Your task to perform on an android device: Go to Yahoo.com Image 0: 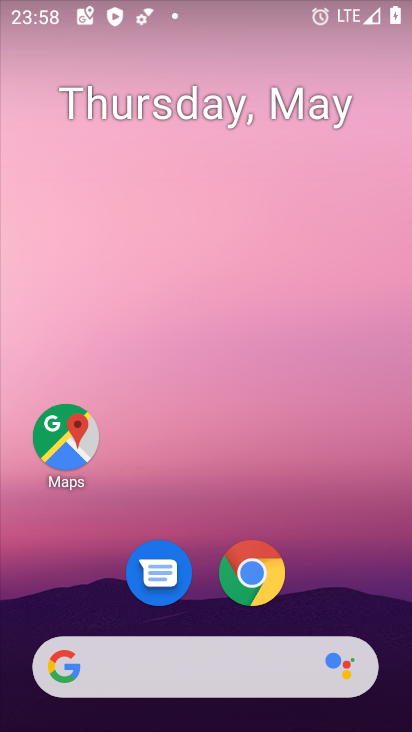
Step 0: click (262, 568)
Your task to perform on an android device: Go to Yahoo.com Image 1: 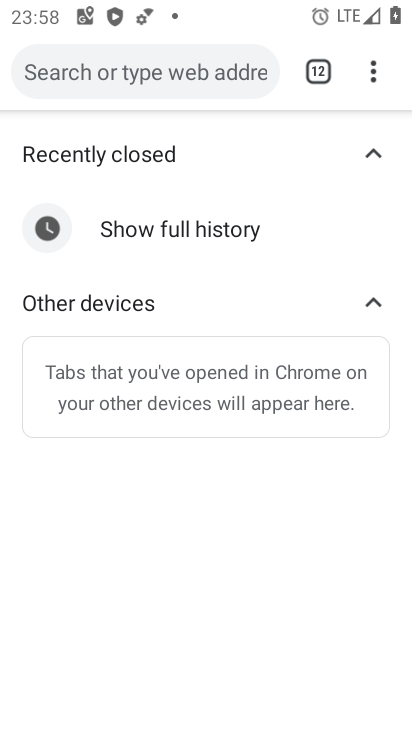
Step 1: click (321, 71)
Your task to perform on an android device: Go to Yahoo.com Image 2: 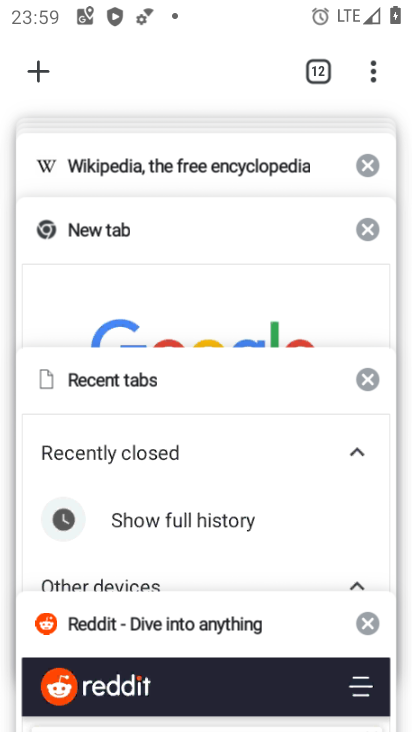
Step 2: drag from (194, 544) to (216, 215)
Your task to perform on an android device: Go to Yahoo.com Image 3: 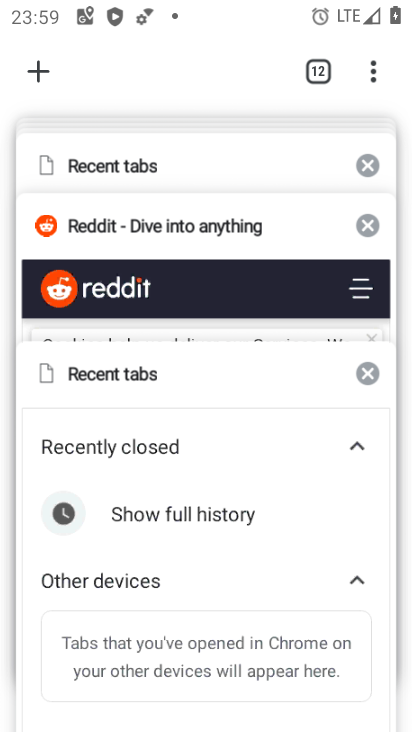
Step 3: drag from (223, 550) to (224, 178)
Your task to perform on an android device: Go to Yahoo.com Image 4: 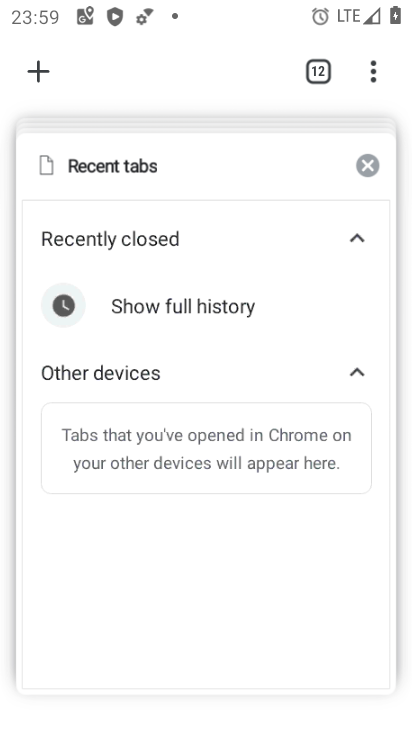
Step 4: drag from (224, 178) to (224, 414)
Your task to perform on an android device: Go to Yahoo.com Image 5: 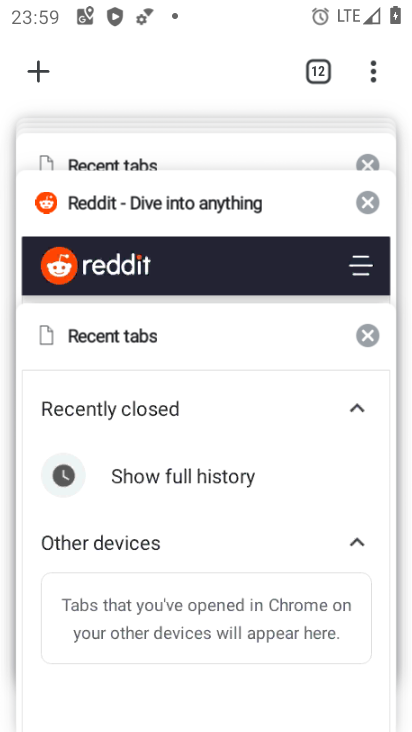
Step 5: drag from (223, 327) to (223, 459)
Your task to perform on an android device: Go to Yahoo.com Image 6: 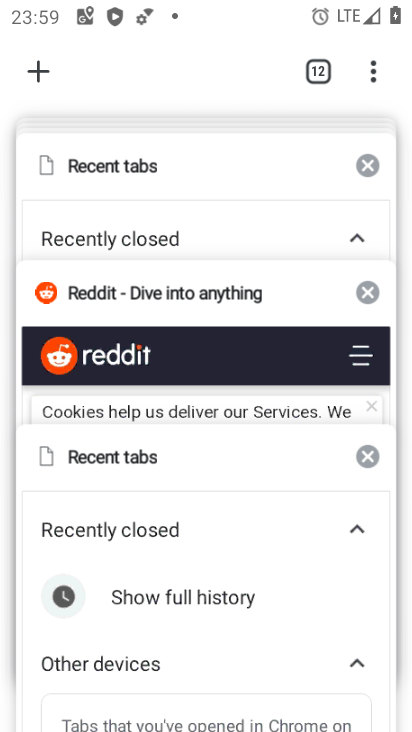
Step 6: drag from (219, 249) to (225, 506)
Your task to perform on an android device: Go to Yahoo.com Image 7: 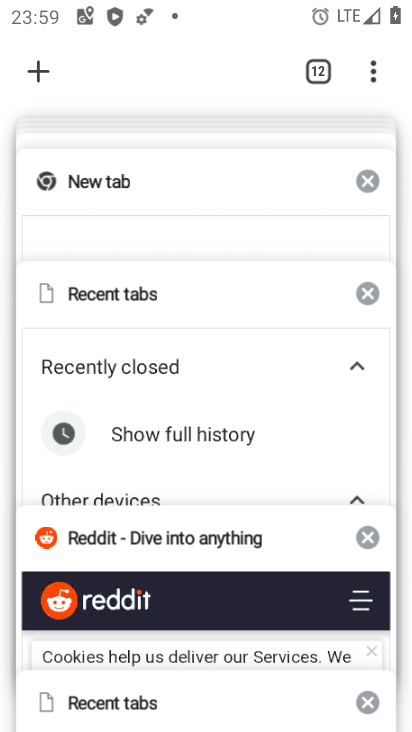
Step 7: drag from (199, 262) to (231, 504)
Your task to perform on an android device: Go to Yahoo.com Image 8: 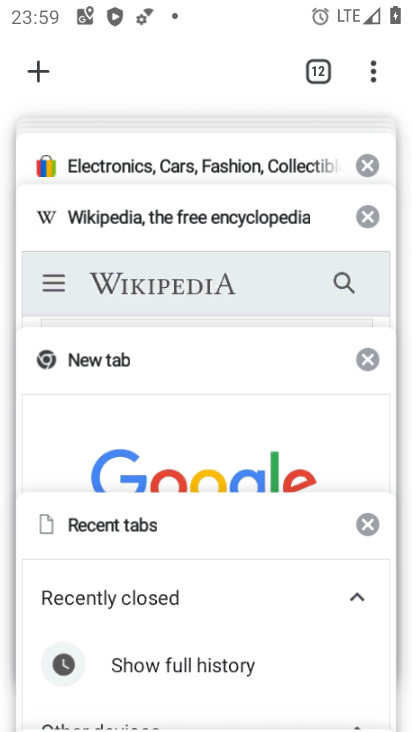
Step 8: drag from (229, 230) to (241, 561)
Your task to perform on an android device: Go to Yahoo.com Image 9: 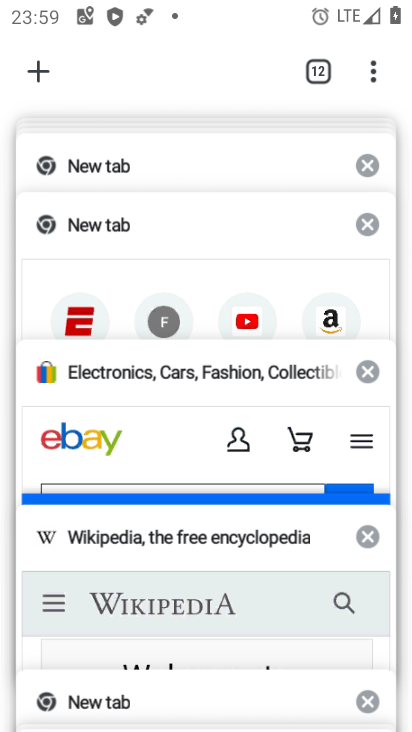
Step 9: drag from (227, 260) to (233, 579)
Your task to perform on an android device: Go to Yahoo.com Image 10: 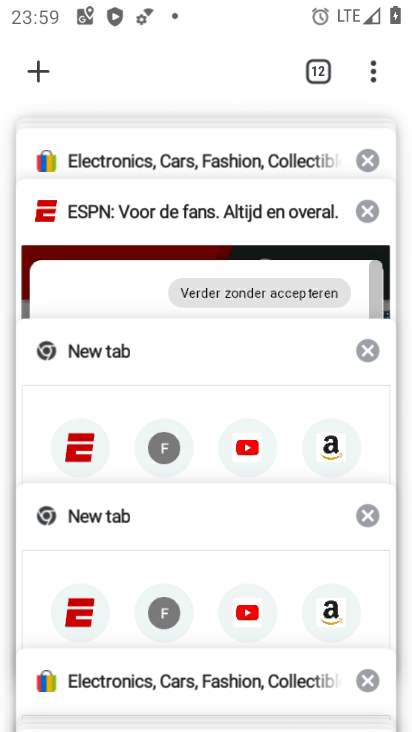
Step 10: drag from (236, 184) to (264, 464)
Your task to perform on an android device: Go to Yahoo.com Image 11: 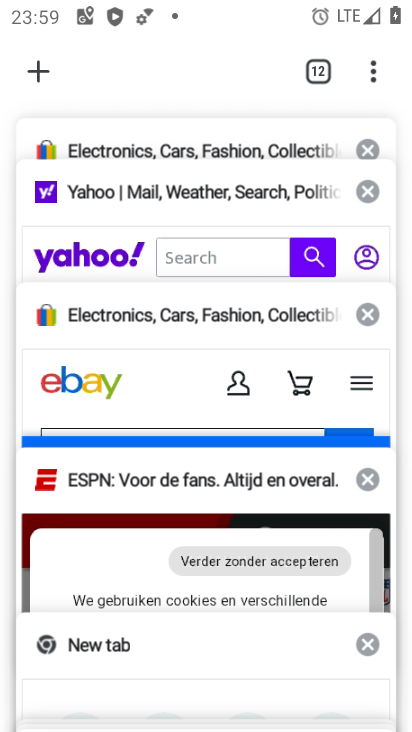
Step 11: drag from (241, 216) to (254, 512)
Your task to perform on an android device: Go to Yahoo.com Image 12: 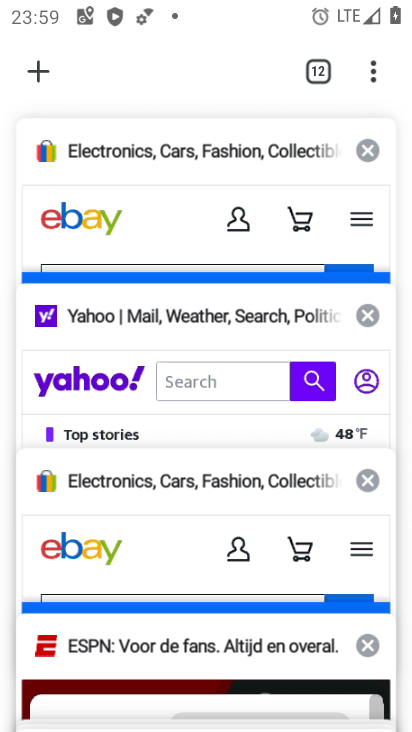
Step 12: drag from (227, 241) to (223, 338)
Your task to perform on an android device: Go to Yahoo.com Image 13: 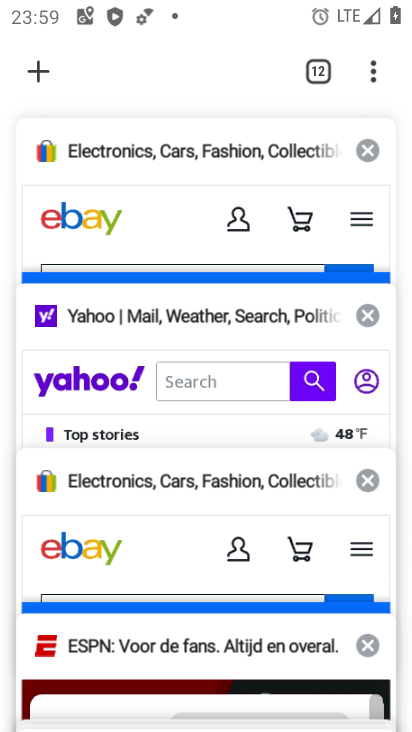
Step 13: click (186, 371)
Your task to perform on an android device: Go to Yahoo.com Image 14: 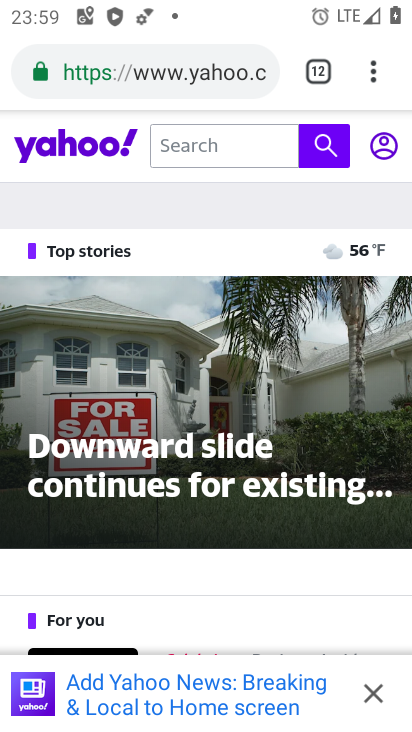
Step 14: task complete